Your task to perform on an android device: Go to wifi settings Image 0: 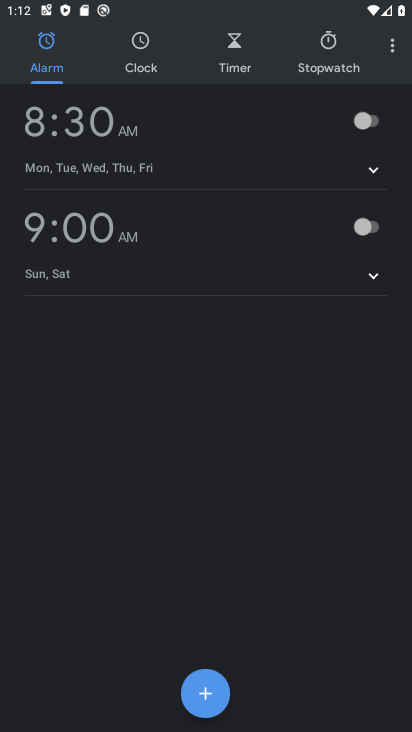
Step 0: press home button
Your task to perform on an android device: Go to wifi settings Image 1: 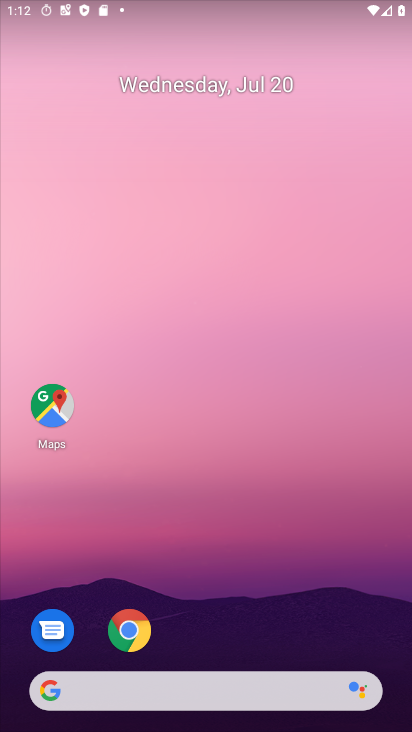
Step 1: drag from (266, 641) to (246, 156)
Your task to perform on an android device: Go to wifi settings Image 2: 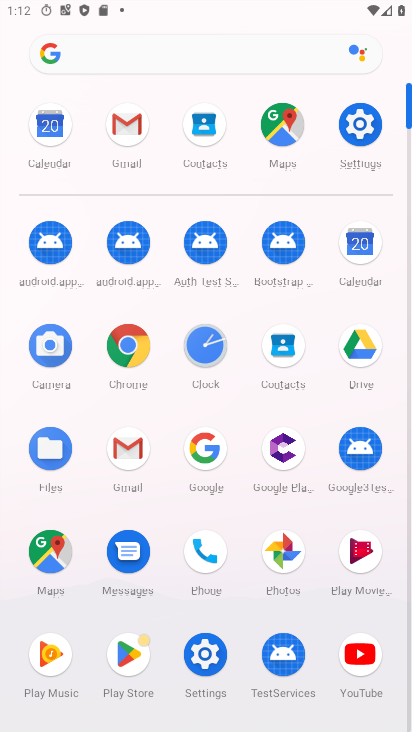
Step 2: click (370, 115)
Your task to perform on an android device: Go to wifi settings Image 3: 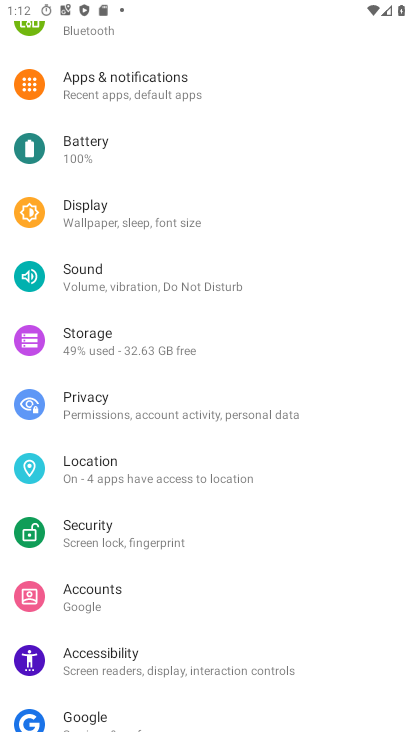
Step 3: drag from (192, 207) to (289, 447)
Your task to perform on an android device: Go to wifi settings Image 4: 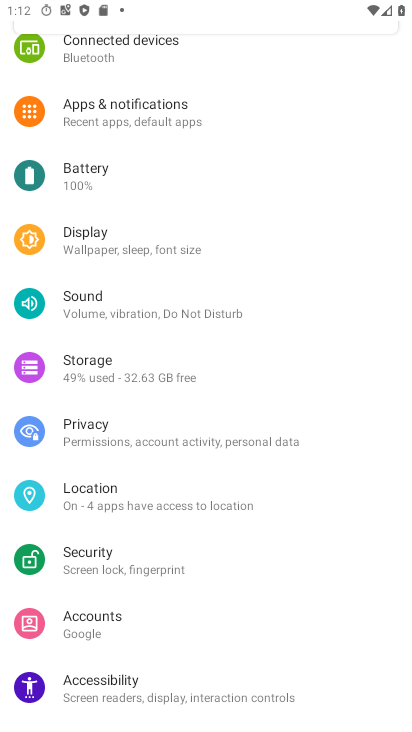
Step 4: drag from (259, 155) to (349, 491)
Your task to perform on an android device: Go to wifi settings Image 5: 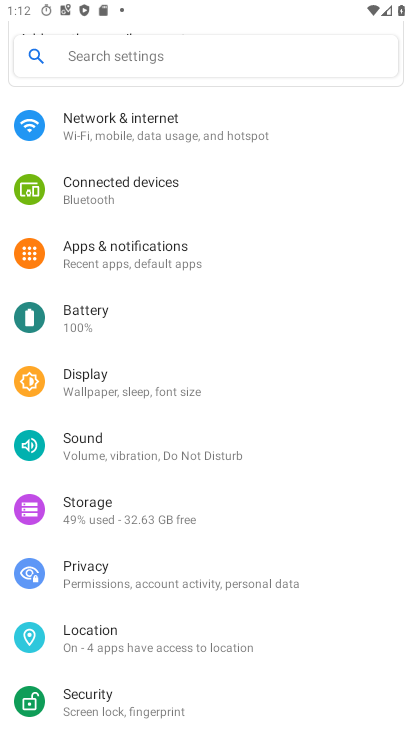
Step 5: click (170, 134)
Your task to perform on an android device: Go to wifi settings Image 6: 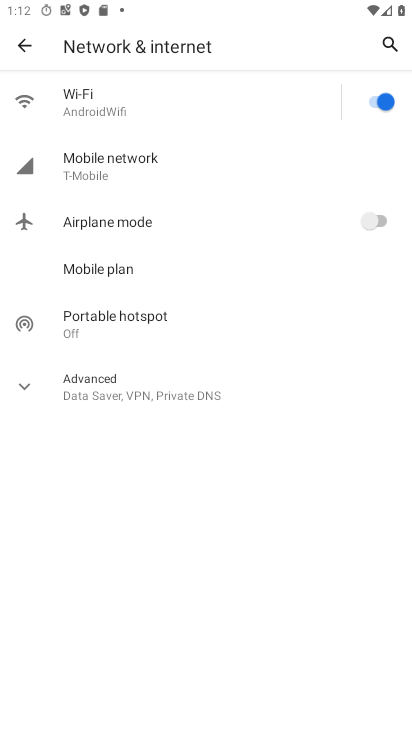
Step 6: click (111, 113)
Your task to perform on an android device: Go to wifi settings Image 7: 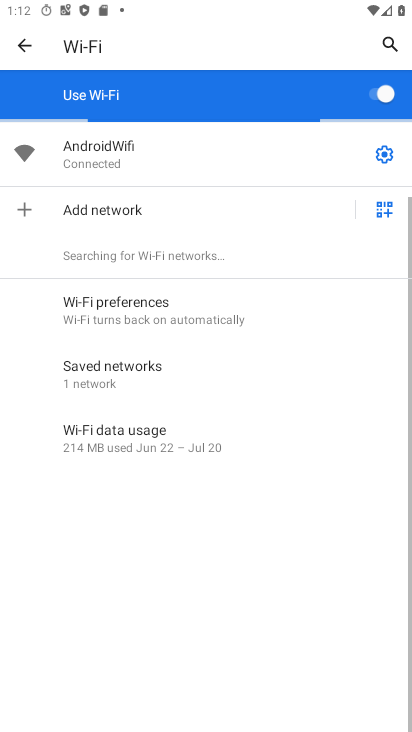
Step 7: task complete